Your task to perform on an android device: change the clock style Image 0: 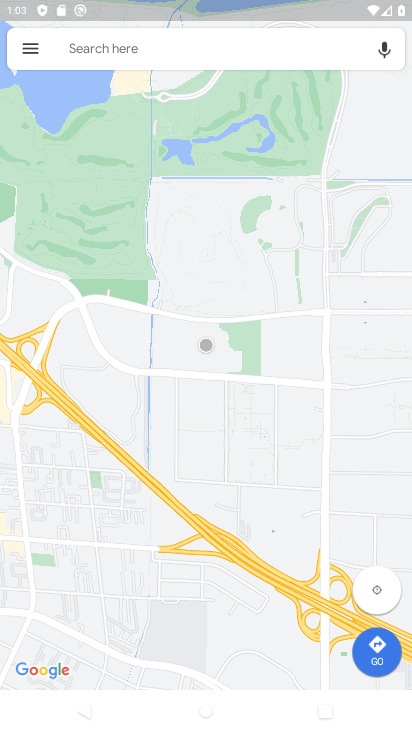
Step 0: press home button
Your task to perform on an android device: change the clock style Image 1: 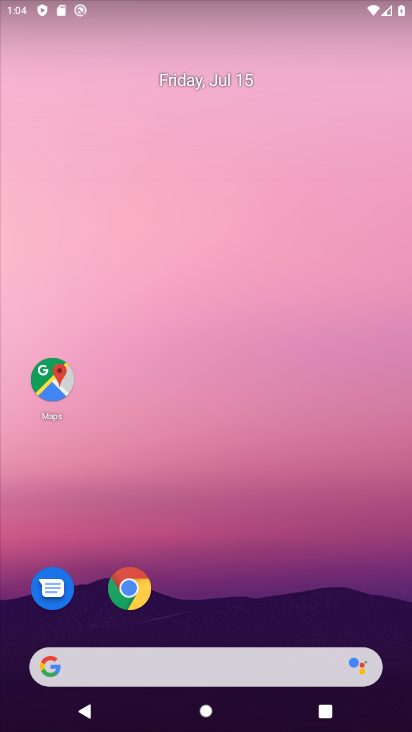
Step 1: drag from (218, 592) to (284, 34)
Your task to perform on an android device: change the clock style Image 2: 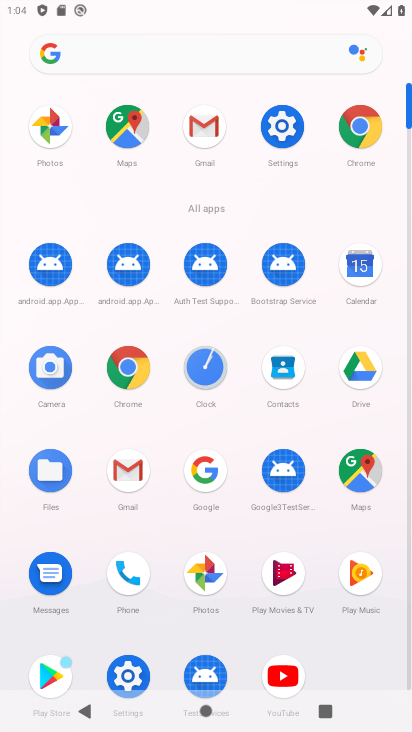
Step 2: click (204, 378)
Your task to perform on an android device: change the clock style Image 3: 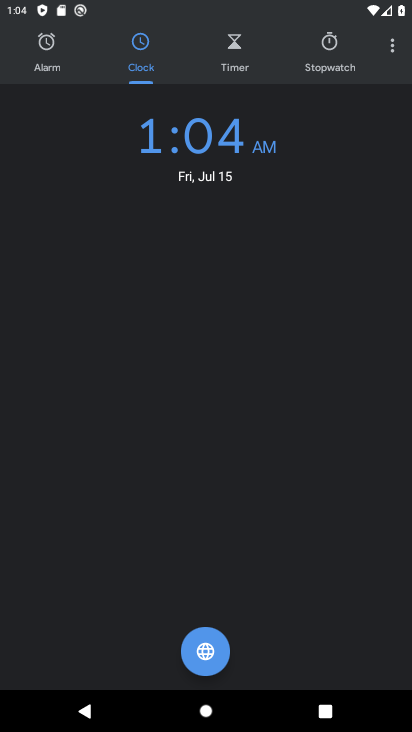
Step 3: click (393, 44)
Your task to perform on an android device: change the clock style Image 4: 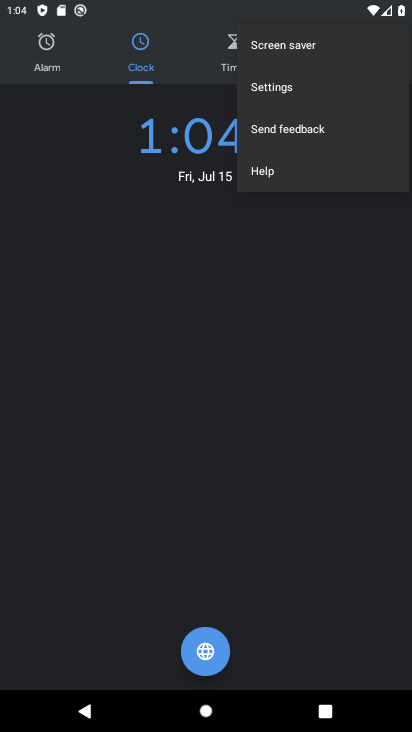
Step 4: click (271, 99)
Your task to perform on an android device: change the clock style Image 5: 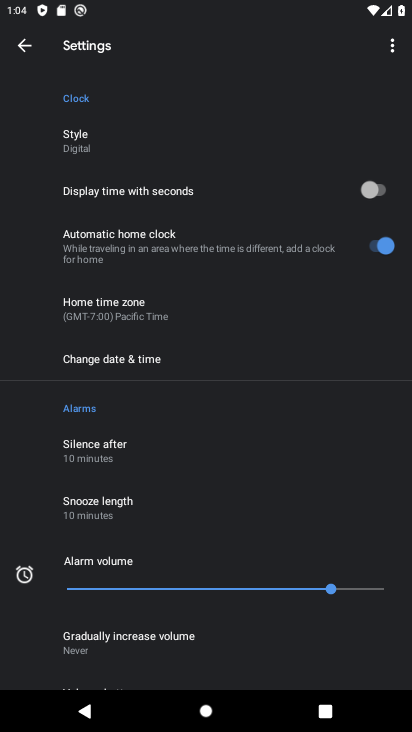
Step 5: click (152, 135)
Your task to perform on an android device: change the clock style Image 6: 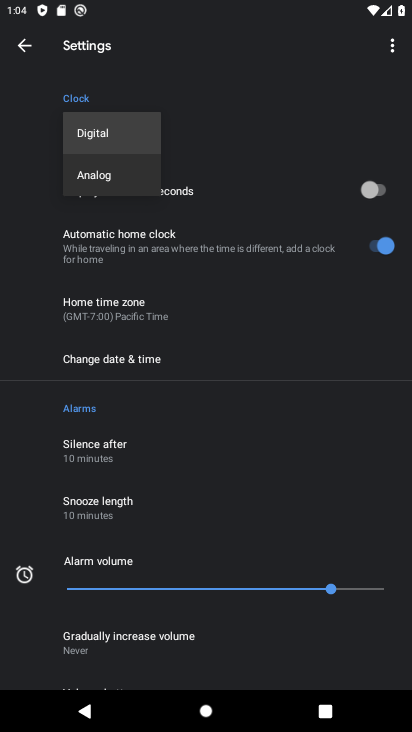
Step 6: click (120, 172)
Your task to perform on an android device: change the clock style Image 7: 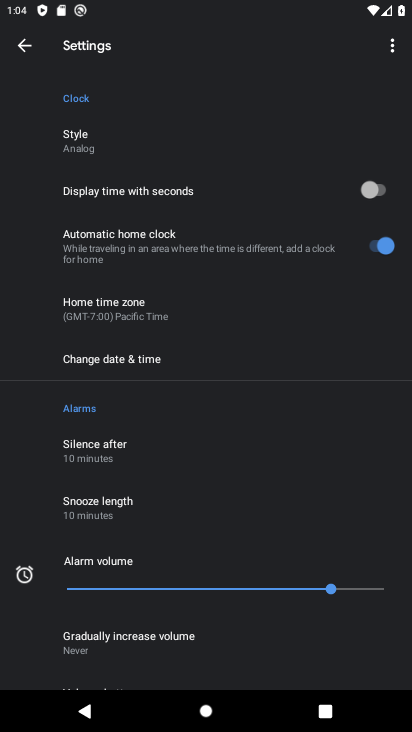
Step 7: task complete